Your task to perform on an android device: turn smart compose on in the gmail app Image 0: 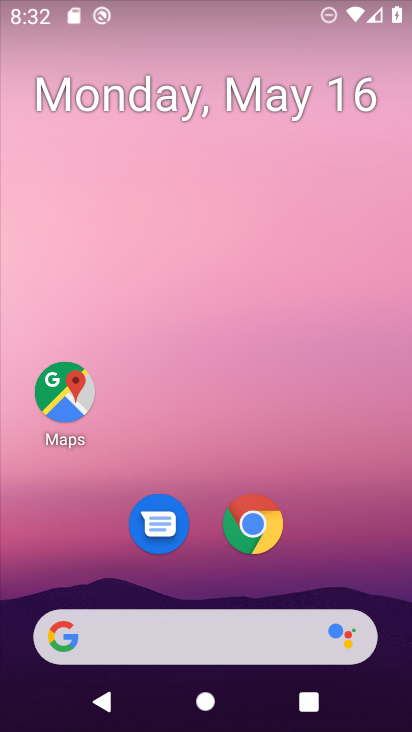
Step 0: drag from (333, 551) to (361, 76)
Your task to perform on an android device: turn smart compose on in the gmail app Image 1: 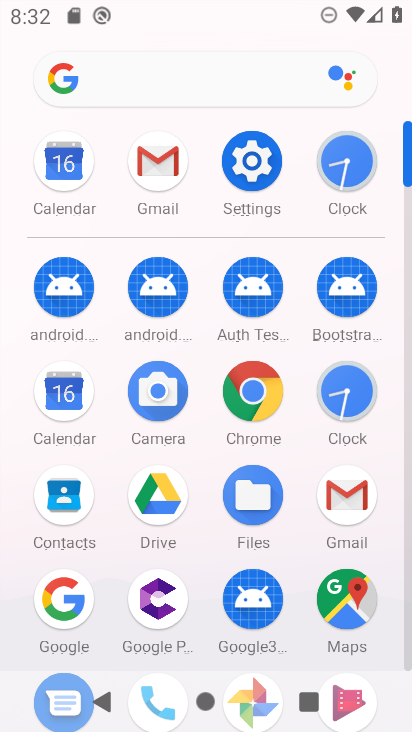
Step 1: click (152, 159)
Your task to perform on an android device: turn smart compose on in the gmail app Image 2: 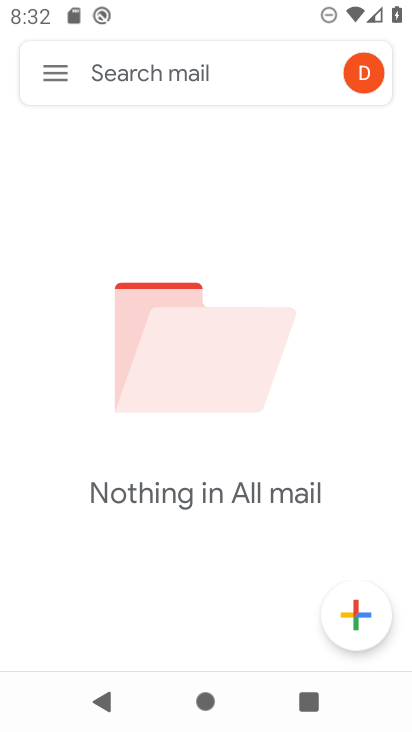
Step 2: click (52, 73)
Your task to perform on an android device: turn smart compose on in the gmail app Image 3: 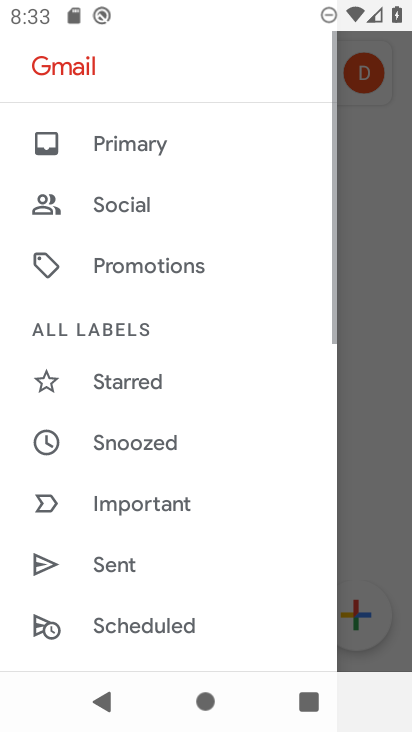
Step 3: drag from (158, 589) to (232, 7)
Your task to perform on an android device: turn smart compose on in the gmail app Image 4: 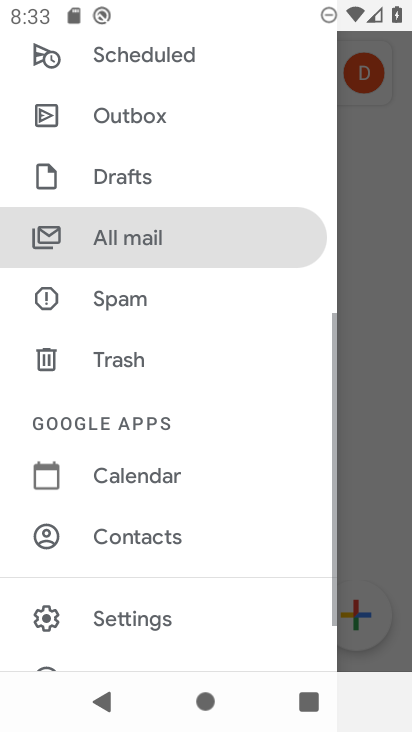
Step 4: click (116, 606)
Your task to perform on an android device: turn smart compose on in the gmail app Image 5: 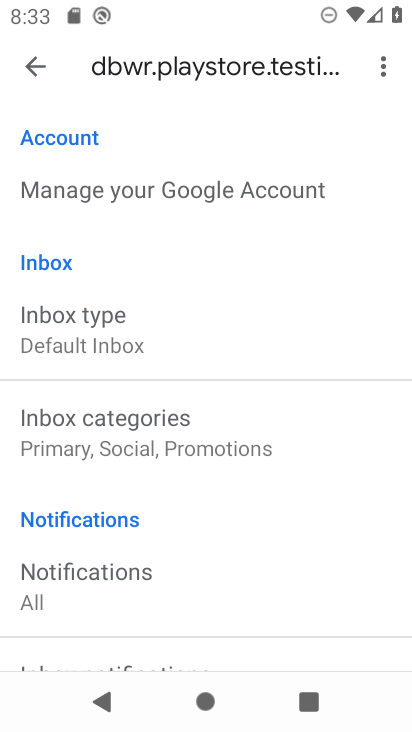
Step 5: task complete